Your task to perform on an android device: open app "Move to iOS" Image 0: 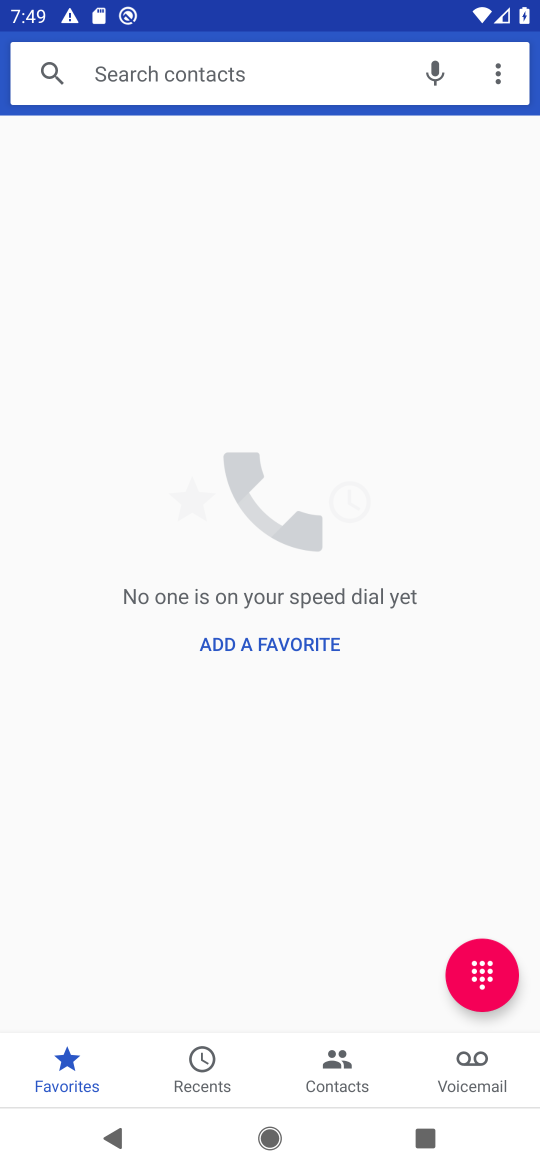
Step 0: press home button
Your task to perform on an android device: open app "Move to iOS" Image 1: 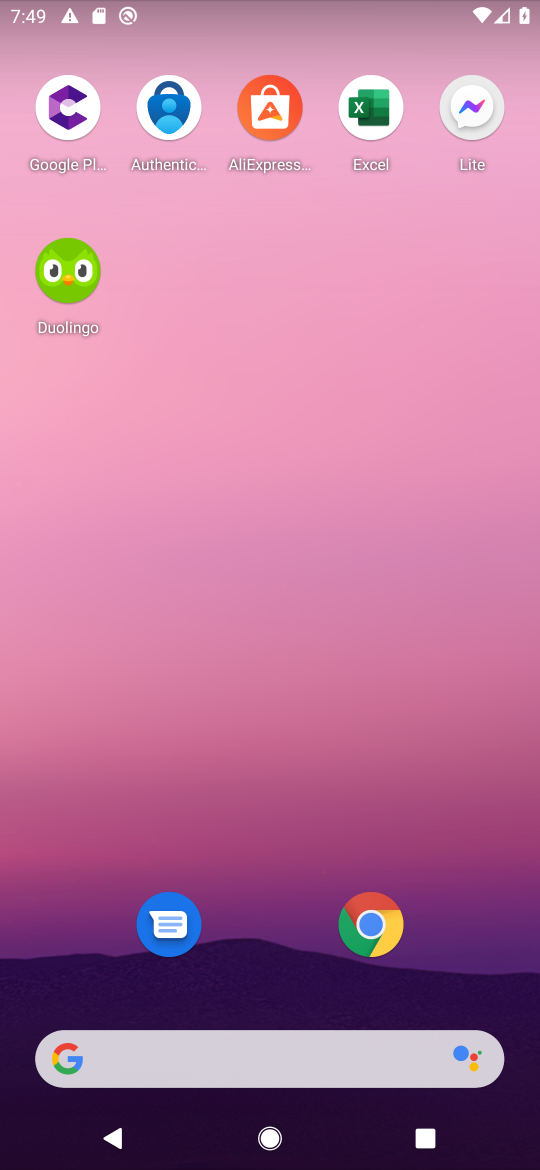
Step 1: drag from (248, 924) to (197, 710)
Your task to perform on an android device: open app "Move to iOS" Image 2: 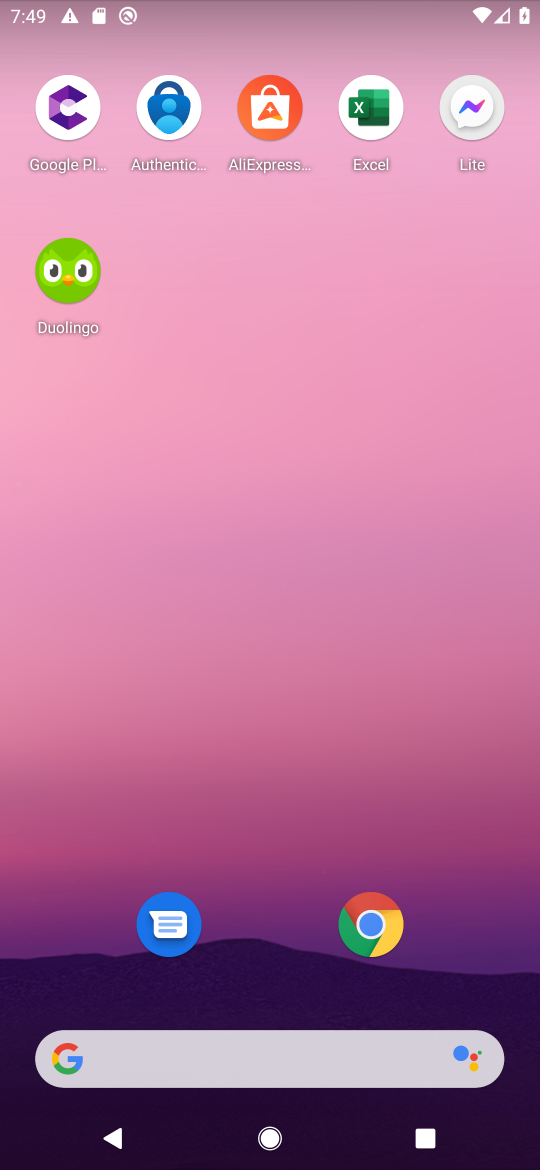
Step 2: drag from (352, 801) to (352, 659)
Your task to perform on an android device: open app "Move to iOS" Image 3: 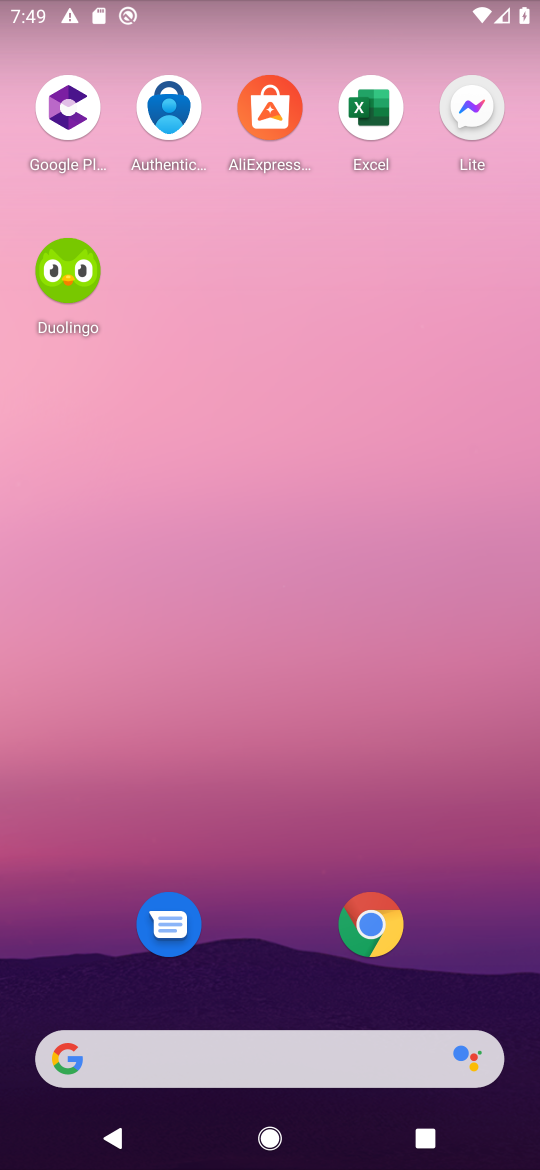
Step 3: drag from (241, 995) to (291, 656)
Your task to perform on an android device: open app "Move to iOS" Image 4: 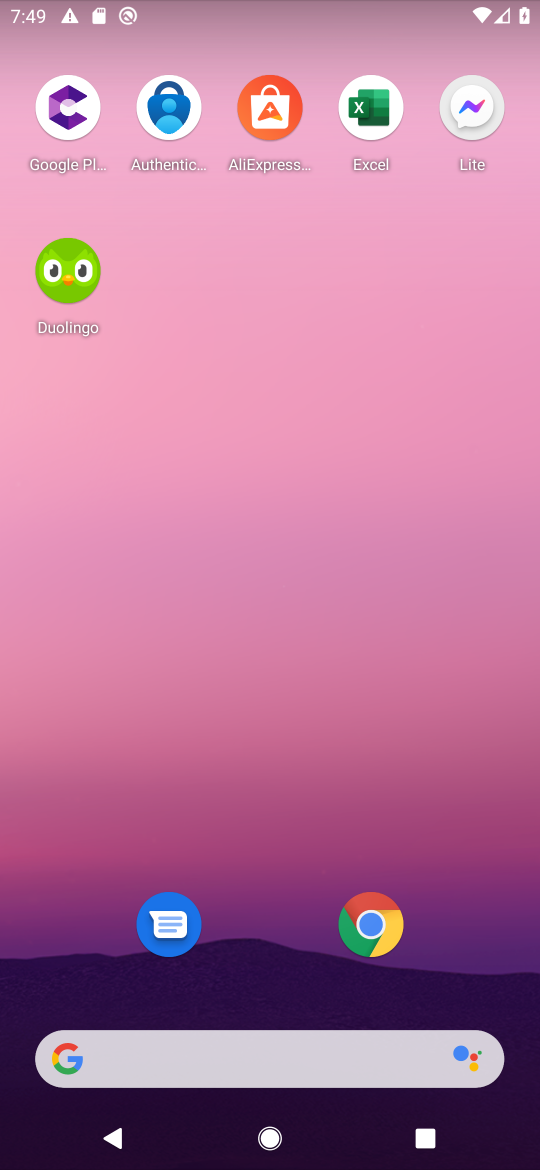
Step 4: drag from (295, 933) to (491, 20)
Your task to perform on an android device: open app "Move to iOS" Image 5: 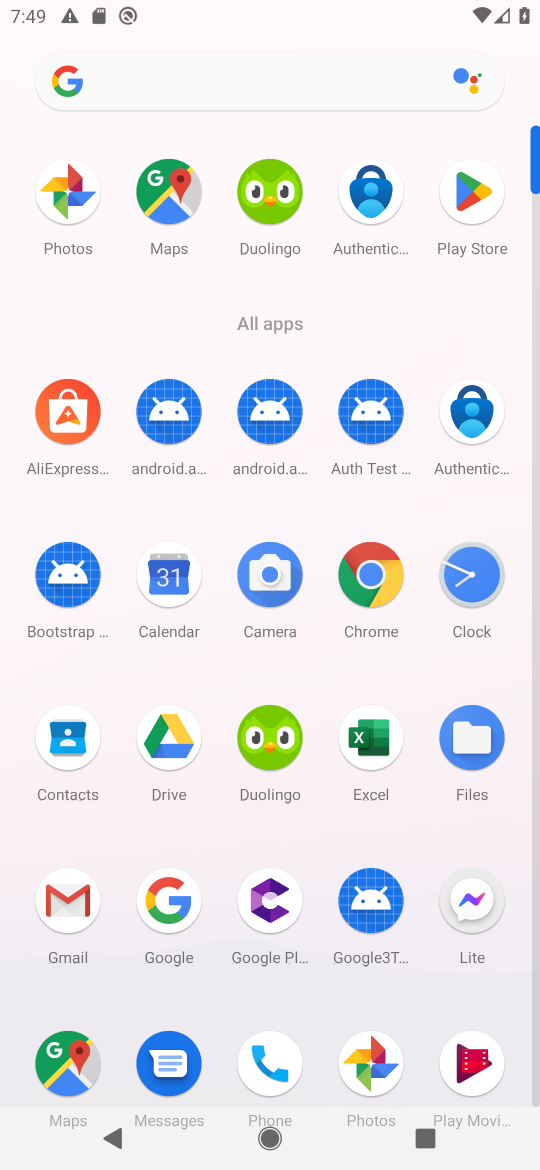
Step 5: click (466, 188)
Your task to perform on an android device: open app "Move to iOS" Image 6: 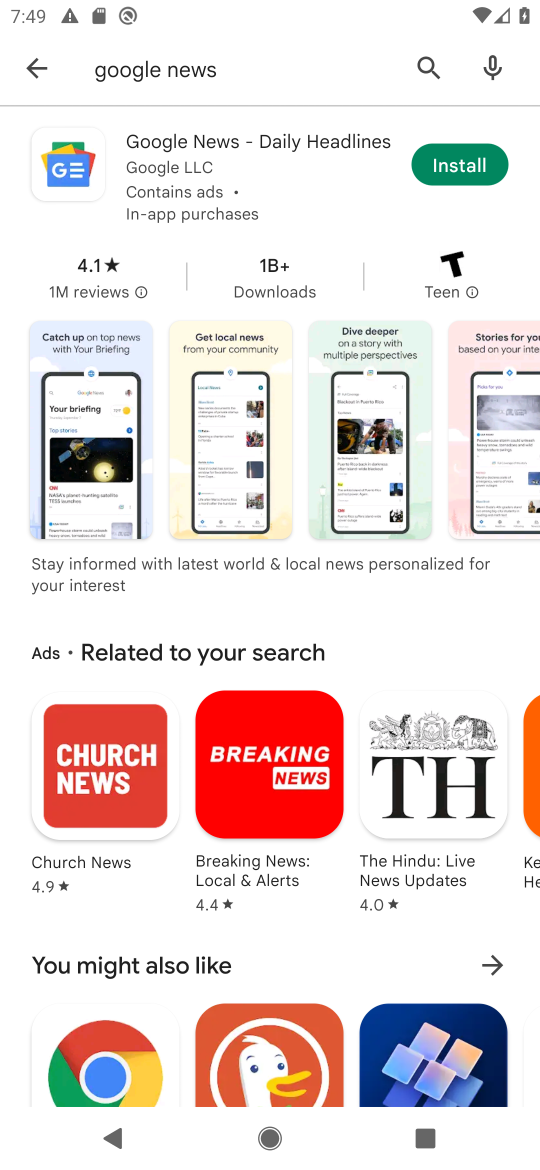
Step 6: click (18, 65)
Your task to perform on an android device: open app "Move to iOS" Image 7: 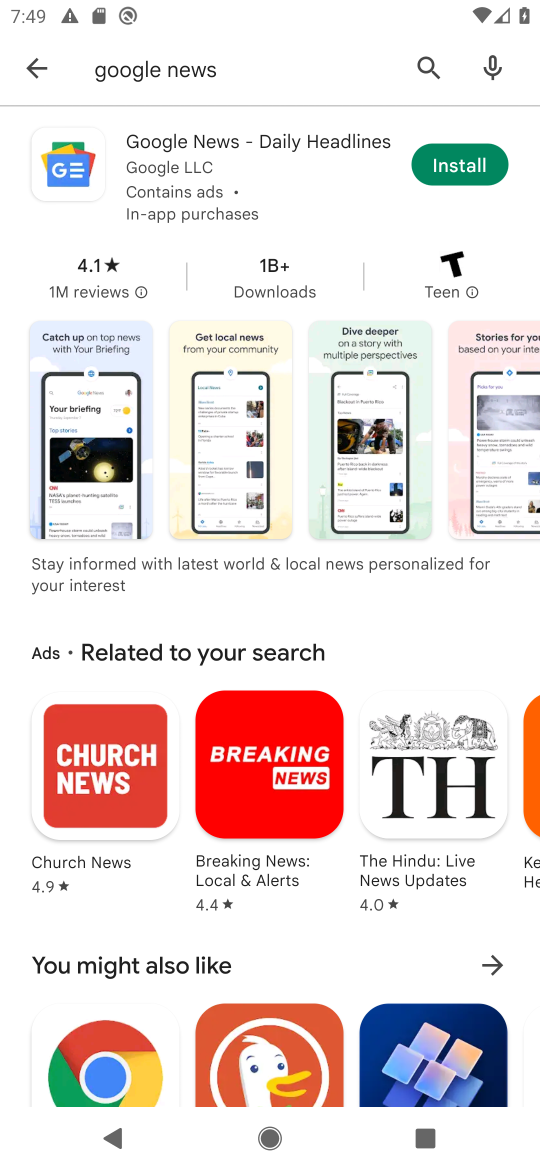
Step 7: click (427, 72)
Your task to perform on an android device: open app "Move to iOS" Image 8: 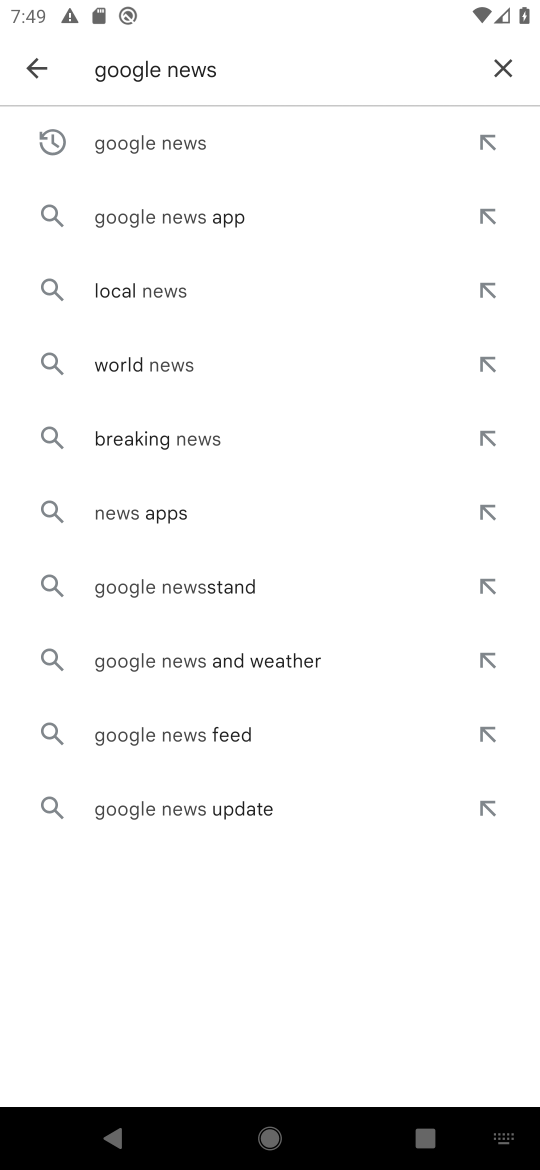
Step 8: click (507, 70)
Your task to perform on an android device: open app "Move to iOS" Image 9: 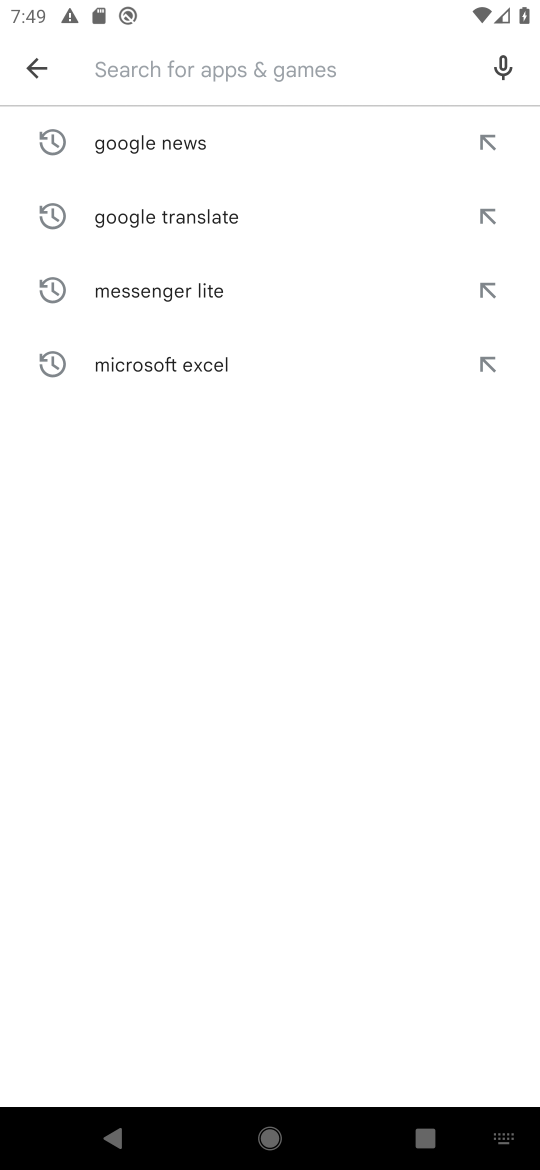
Step 9: type "Move to iOS"
Your task to perform on an android device: open app "Move to iOS" Image 10: 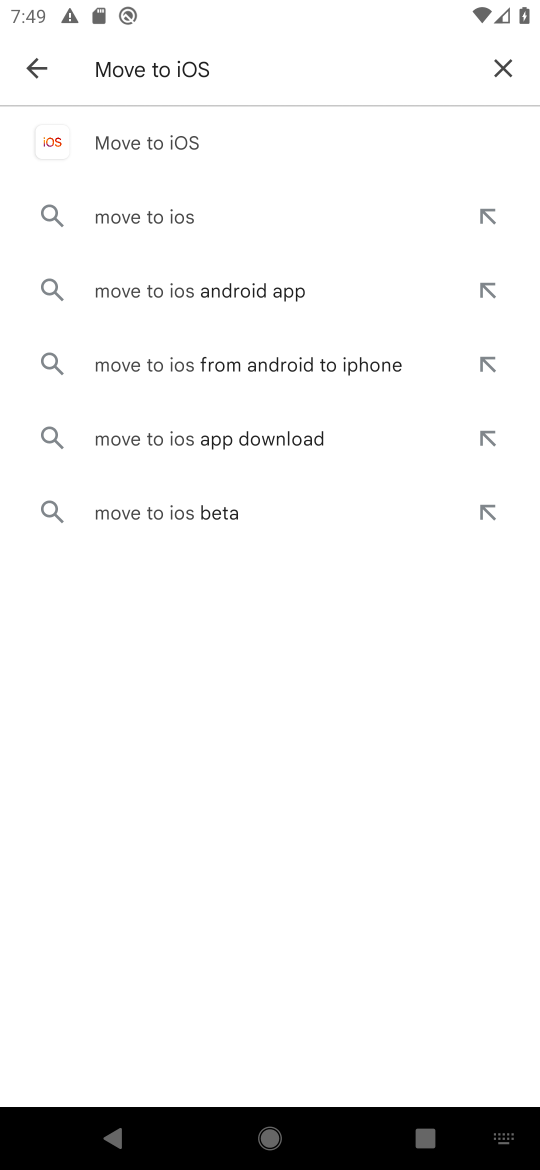
Step 10: click (142, 148)
Your task to perform on an android device: open app "Move to iOS" Image 11: 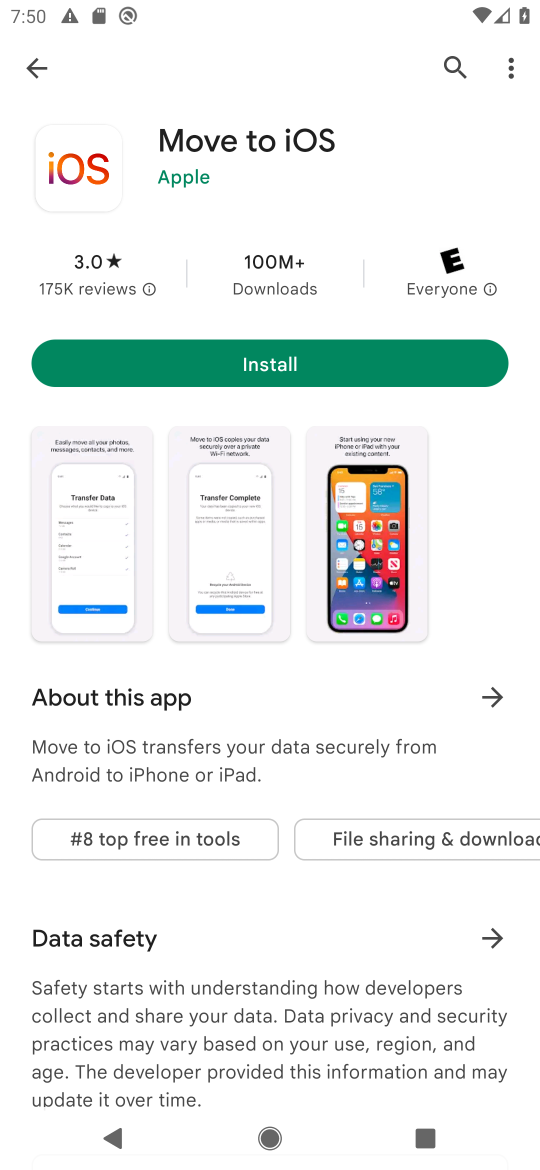
Step 11: click (296, 361)
Your task to perform on an android device: open app "Move to iOS" Image 12: 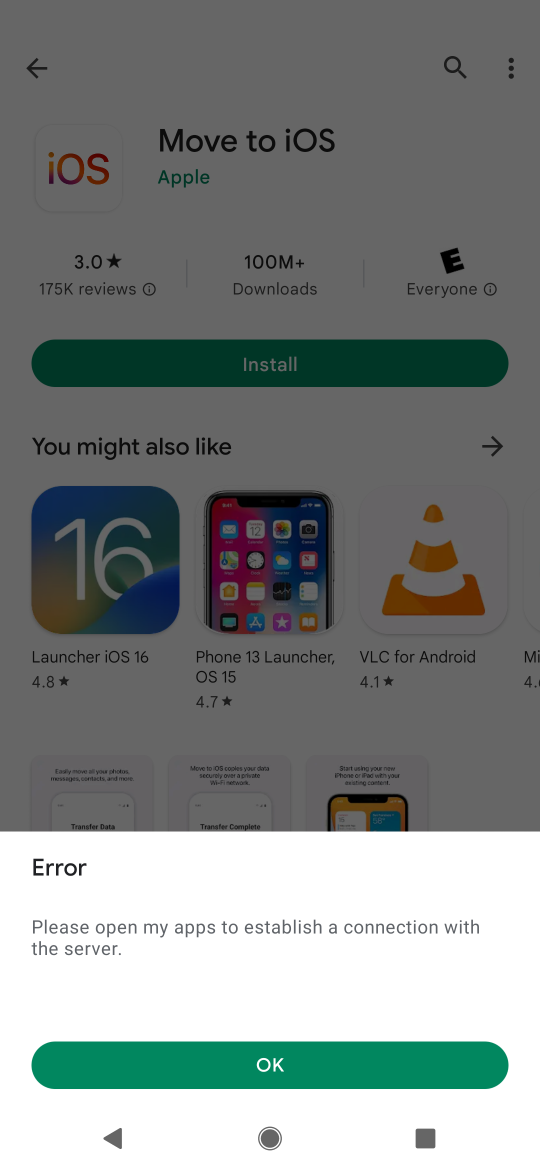
Step 12: task complete